Your task to perform on an android device: turn notification dots off Image 0: 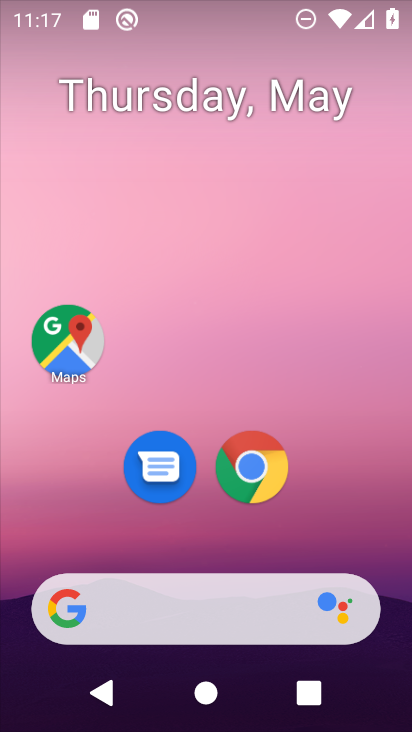
Step 0: drag from (211, 542) to (303, 185)
Your task to perform on an android device: turn notification dots off Image 1: 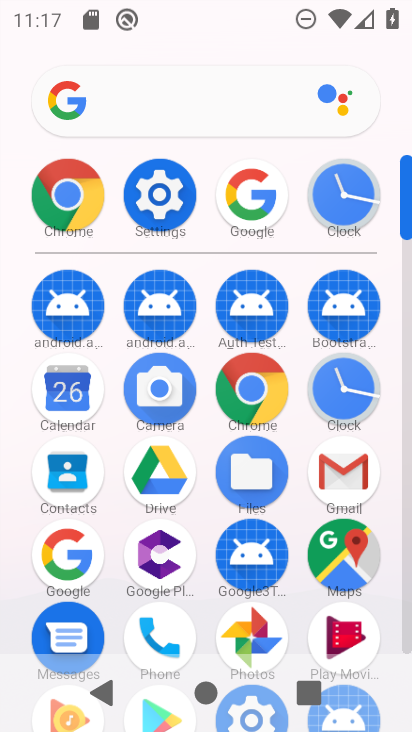
Step 1: drag from (206, 209) to (223, 45)
Your task to perform on an android device: turn notification dots off Image 2: 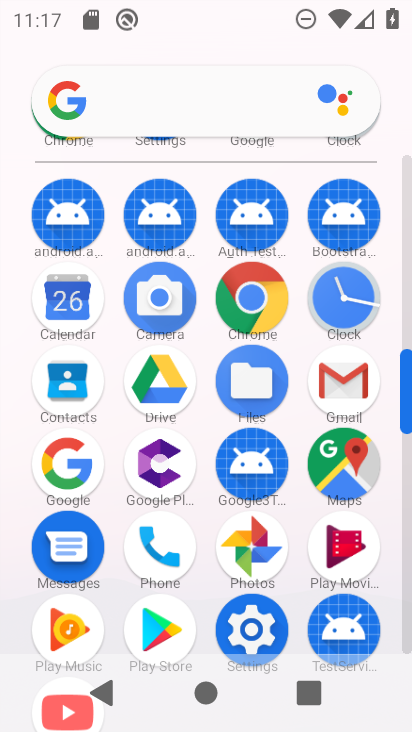
Step 2: click (243, 622)
Your task to perform on an android device: turn notification dots off Image 3: 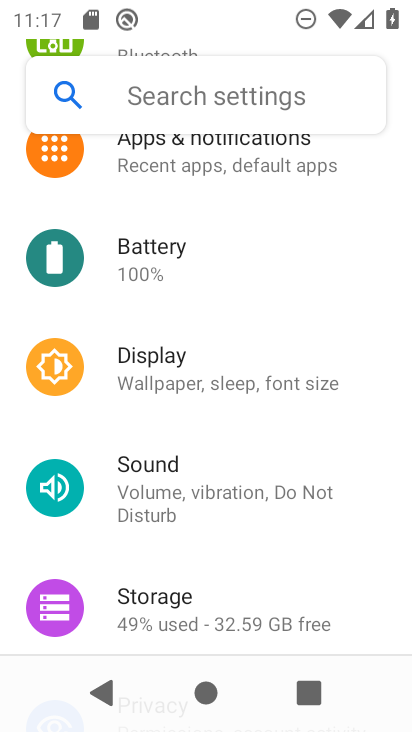
Step 3: click (232, 170)
Your task to perform on an android device: turn notification dots off Image 4: 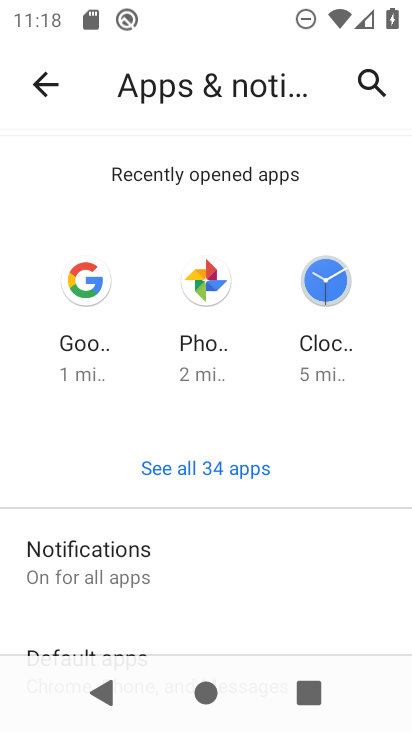
Step 4: click (196, 566)
Your task to perform on an android device: turn notification dots off Image 5: 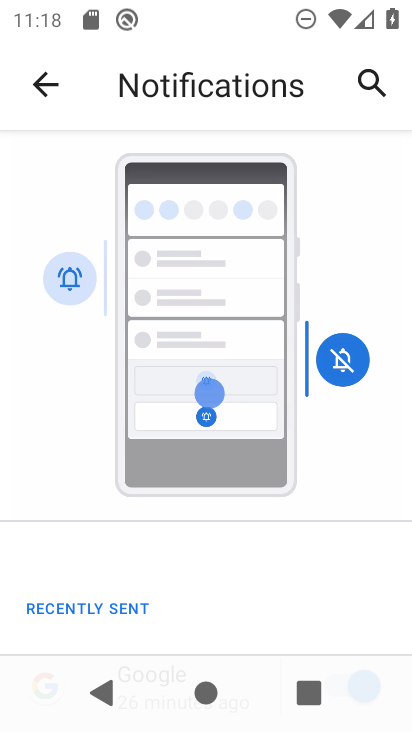
Step 5: drag from (237, 613) to (292, 191)
Your task to perform on an android device: turn notification dots off Image 6: 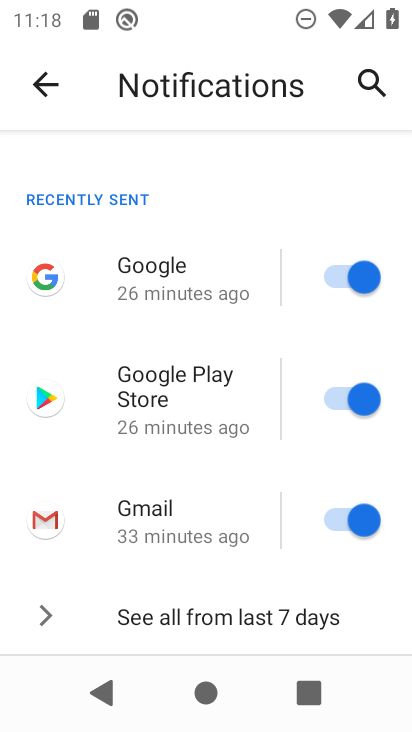
Step 6: drag from (203, 560) to (209, 168)
Your task to perform on an android device: turn notification dots off Image 7: 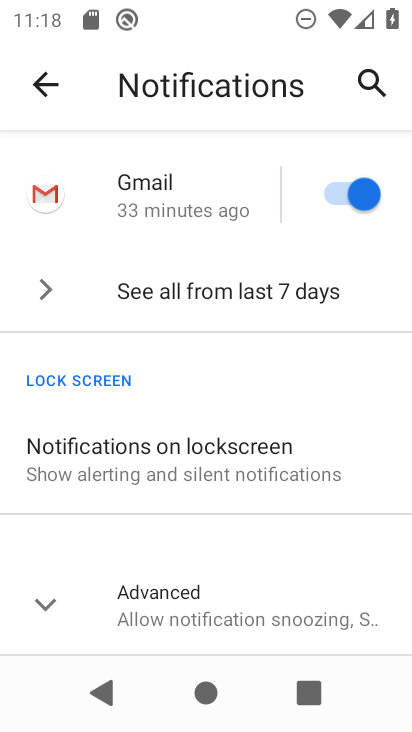
Step 7: drag from (209, 548) to (249, 282)
Your task to perform on an android device: turn notification dots off Image 8: 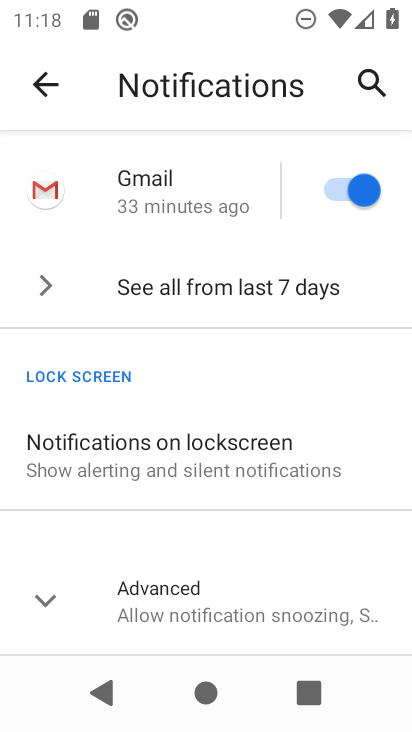
Step 8: click (179, 608)
Your task to perform on an android device: turn notification dots off Image 9: 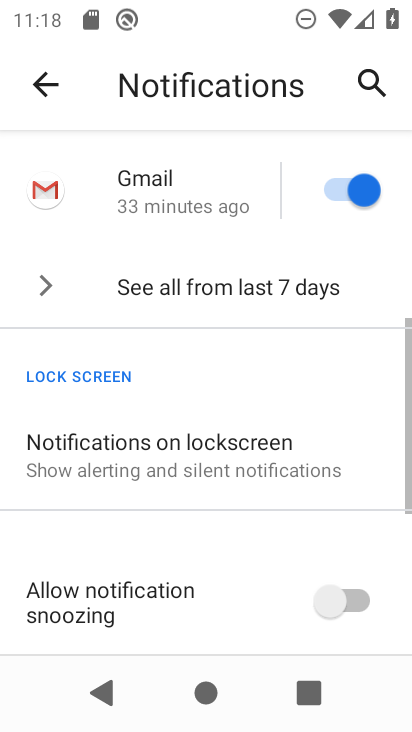
Step 9: drag from (180, 598) to (259, 234)
Your task to perform on an android device: turn notification dots off Image 10: 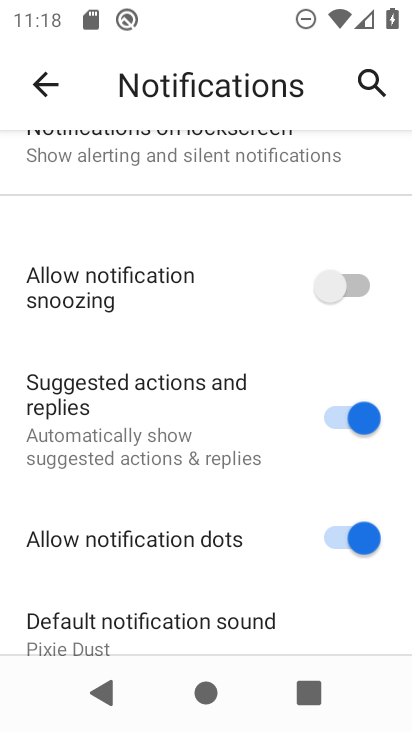
Step 10: click (366, 534)
Your task to perform on an android device: turn notification dots off Image 11: 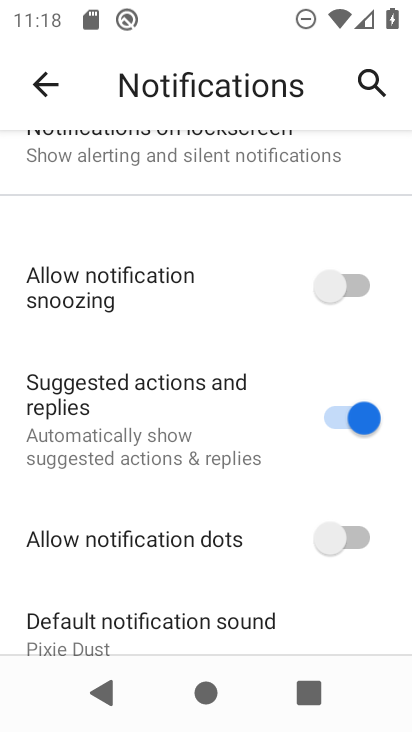
Step 11: task complete